Your task to perform on an android device: Open location settings Image 0: 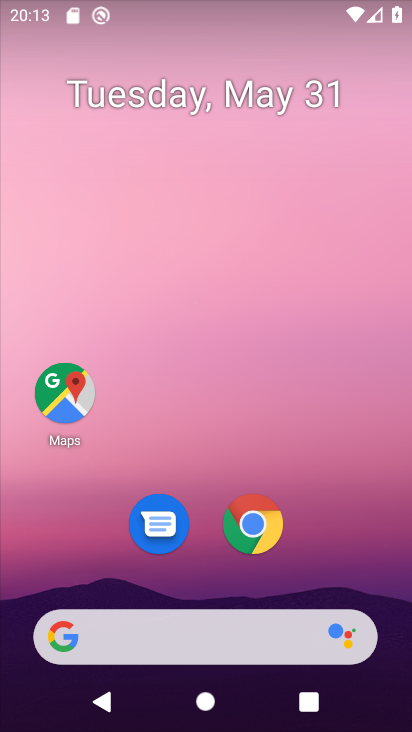
Step 0: drag from (295, 523) to (333, 28)
Your task to perform on an android device: Open location settings Image 1: 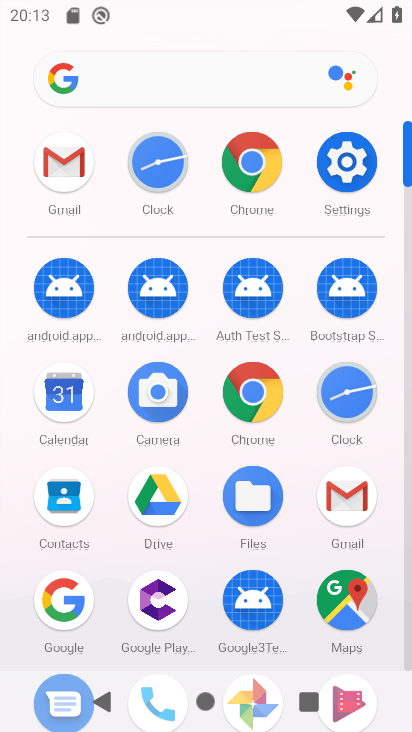
Step 1: click (335, 171)
Your task to perform on an android device: Open location settings Image 2: 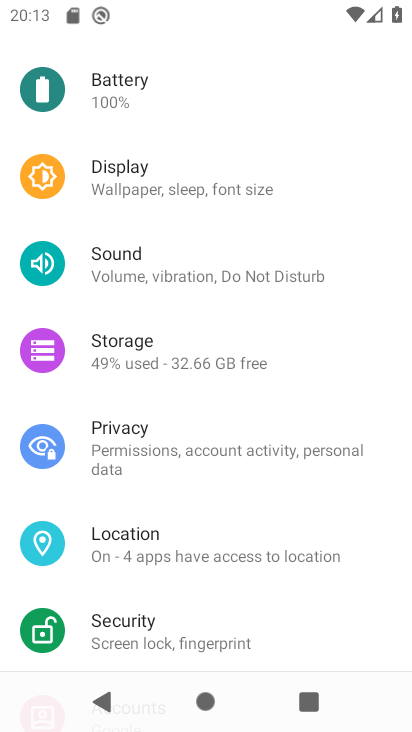
Step 2: click (193, 545)
Your task to perform on an android device: Open location settings Image 3: 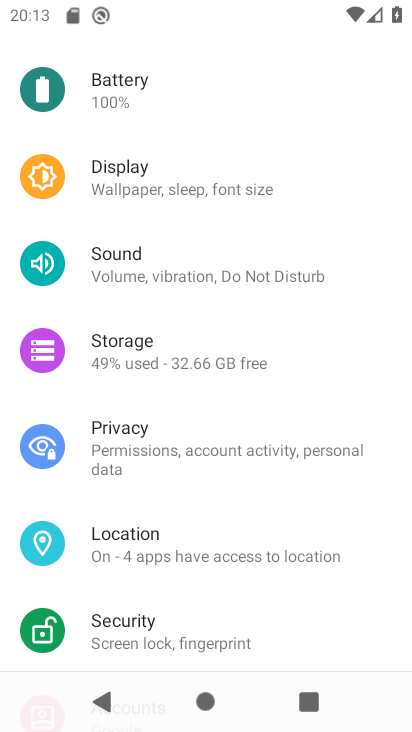
Step 3: click (191, 544)
Your task to perform on an android device: Open location settings Image 4: 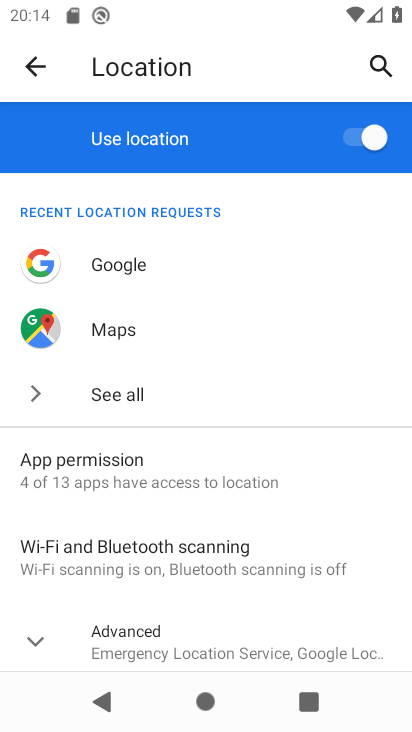
Step 4: task complete